Your task to perform on an android device: turn on wifi Image 0: 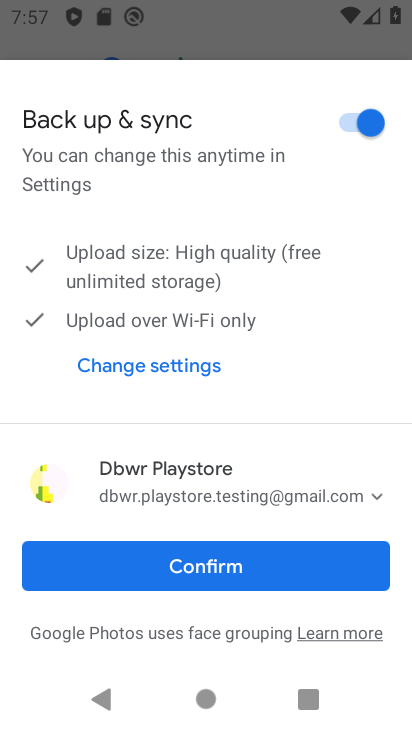
Step 0: press home button
Your task to perform on an android device: turn on wifi Image 1: 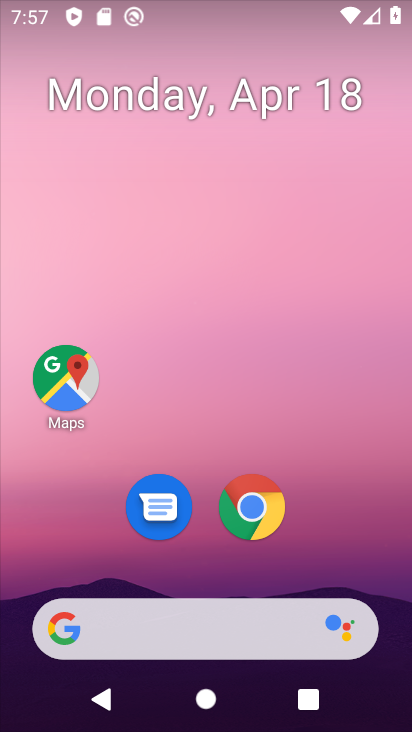
Step 1: drag from (289, 532) to (291, 78)
Your task to perform on an android device: turn on wifi Image 2: 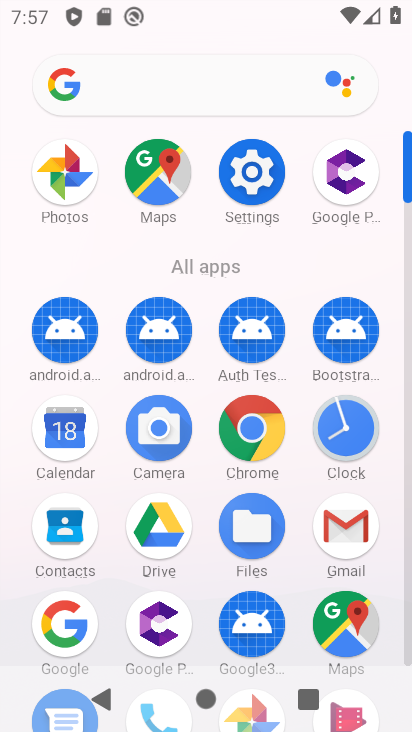
Step 2: click (255, 172)
Your task to perform on an android device: turn on wifi Image 3: 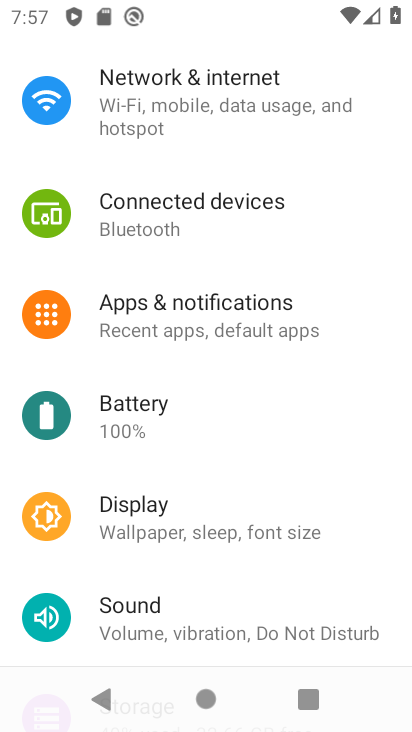
Step 3: click (198, 103)
Your task to perform on an android device: turn on wifi Image 4: 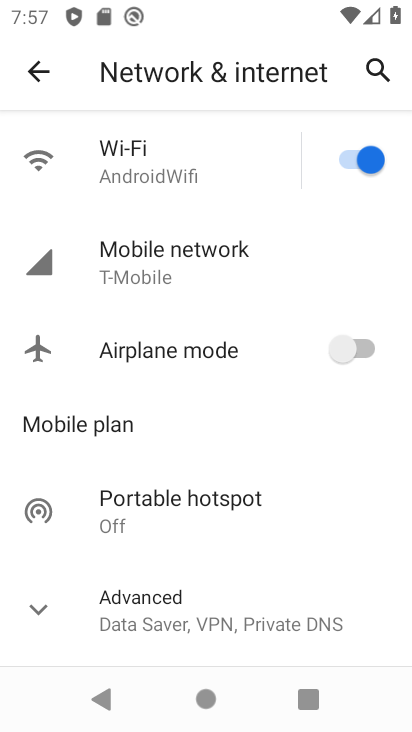
Step 4: click (136, 157)
Your task to perform on an android device: turn on wifi Image 5: 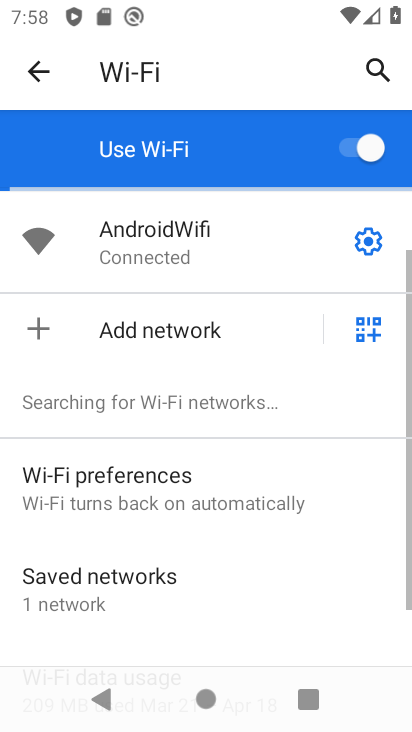
Step 5: task complete